Your task to perform on an android device: change timer sound Image 0: 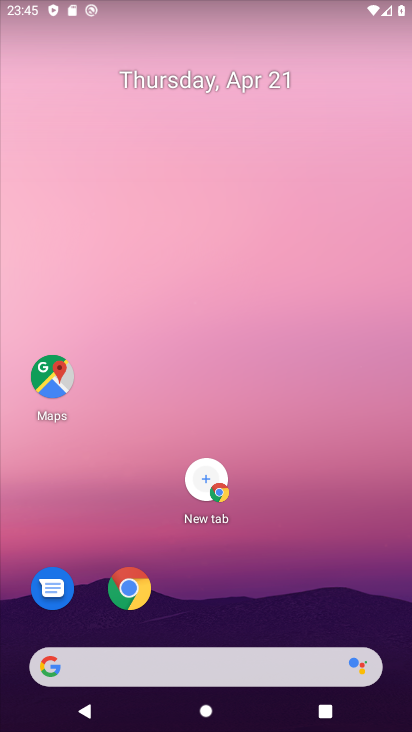
Step 0: drag from (242, 432) to (302, 53)
Your task to perform on an android device: change timer sound Image 1: 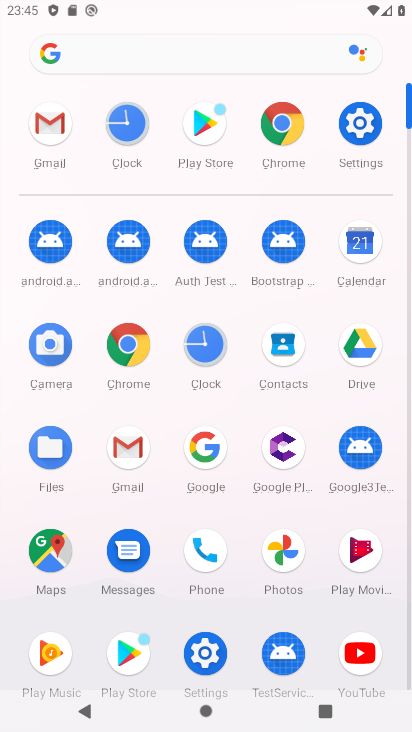
Step 1: click (205, 335)
Your task to perform on an android device: change timer sound Image 2: 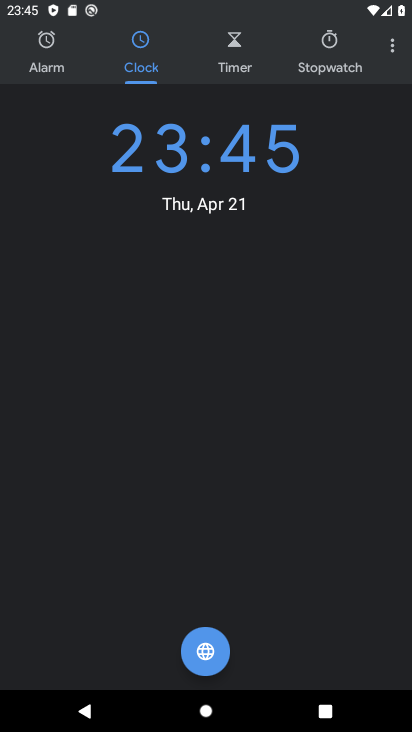
Step 2: click (403, 48)
Your task to perform on an android device: change timer sound Image 3: 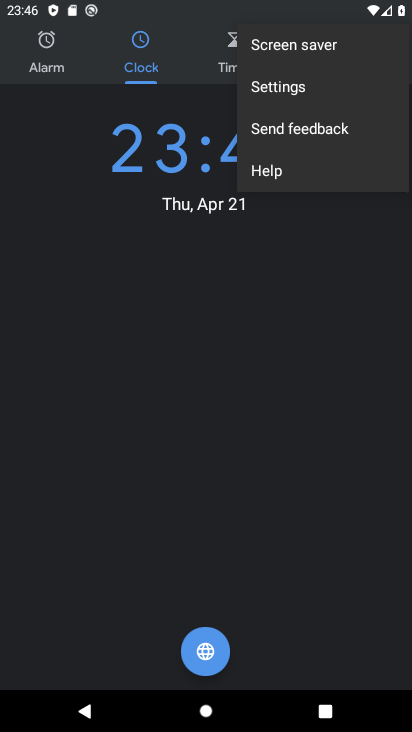
Step 3: click (282, 92)
Your task to perform on an android device: change timer sound Image 4: 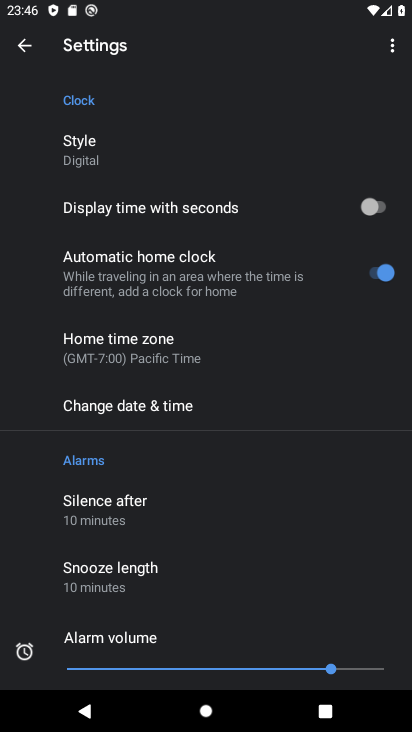
Step 4: drag from (140, 536) to (208, 184)
Your task to perform on an android device: change timer sound Image 5: 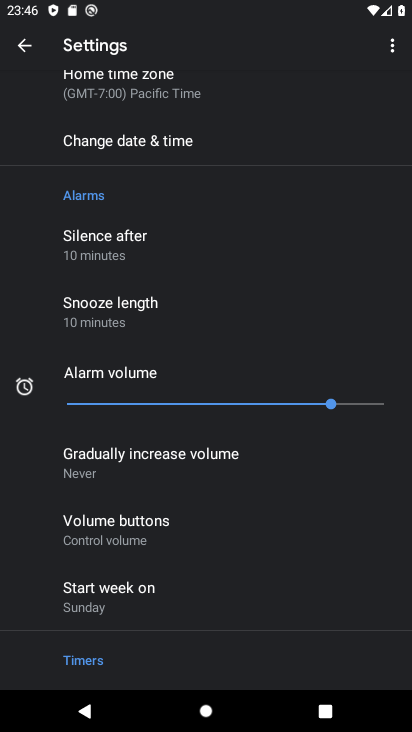
Step 5: drag from (192, 559) to (224, 34)
Your task to perform on an android device: change timer sound Image 6: 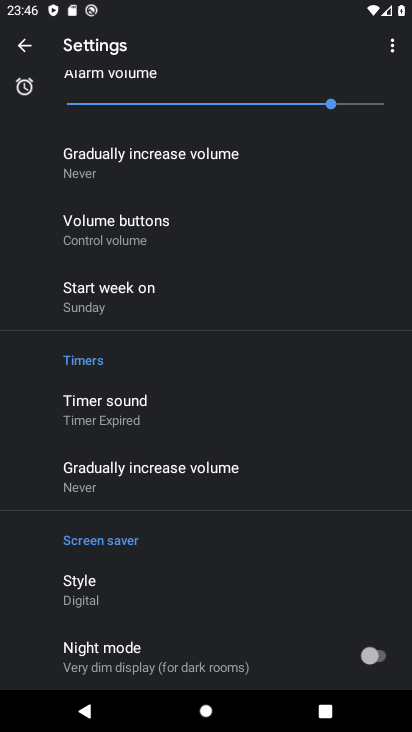
Step 6: click (151, 424)
Your task to perform on an android device: change timer sound Image 7: 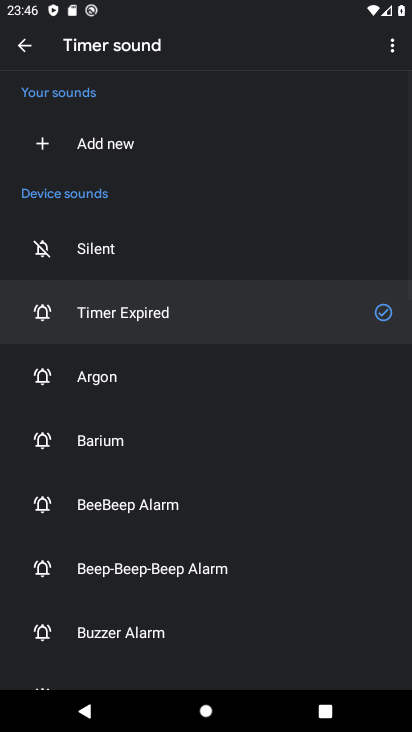
Step 7: click (132, 513)
Your task to perform on an android device: change timer sound Image 8: 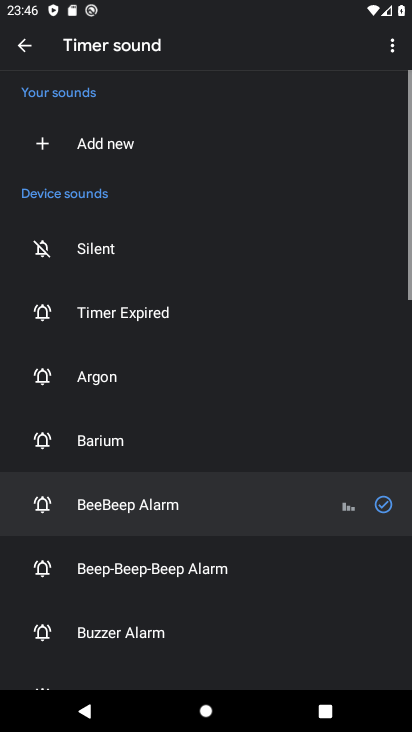
Step 8: task complete